Your task to perform on an android device: turn on javascript in the chrome app Image 0: 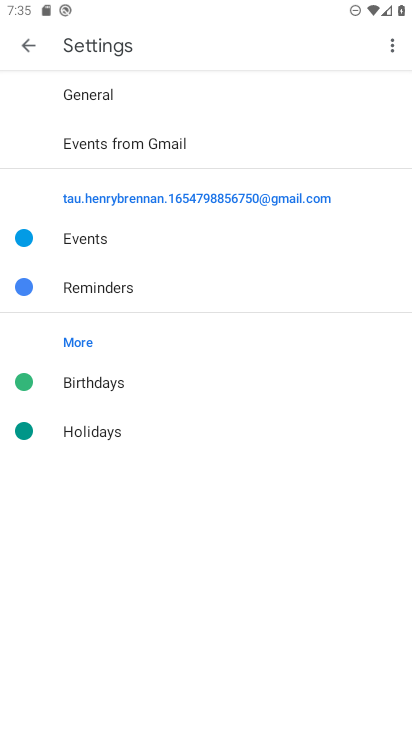
Step 0: press home button
Your task to perform on an android device: turn on javascript in the chrome app Image 1: 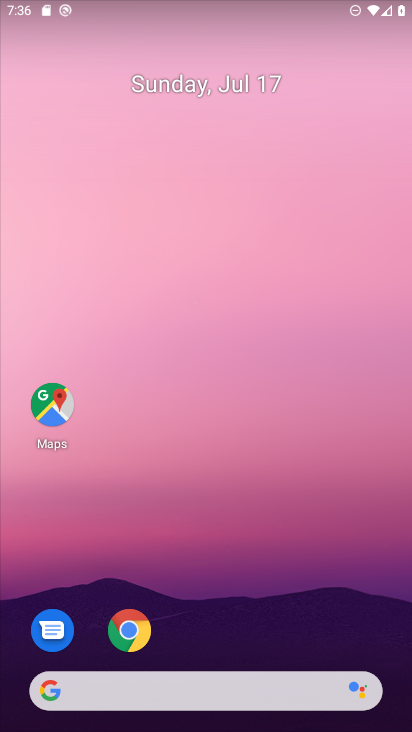
Step 1: drag from (320, 618) to (223, 14)
Your task to perform on an android device: turn on javascript in the chrome app Image 2: 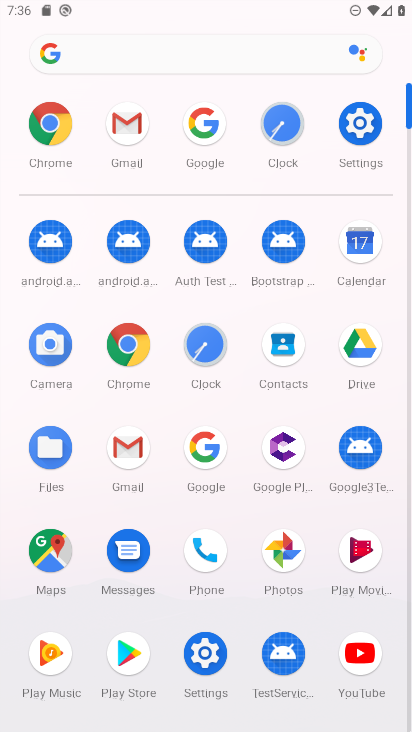
Step 2: click (35, 114)
Your task to perform on an android device: turn on javascript in the chrome app Image 3: 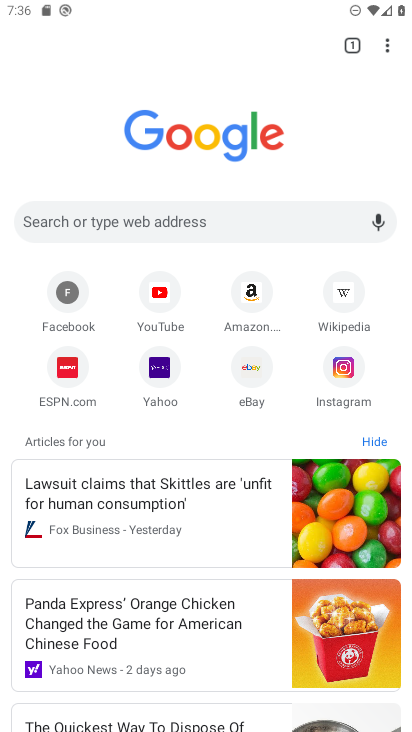
Step 3: click (385, 44)
Your task to perform on an android device: turn on javascript in the chrome app Image 4: 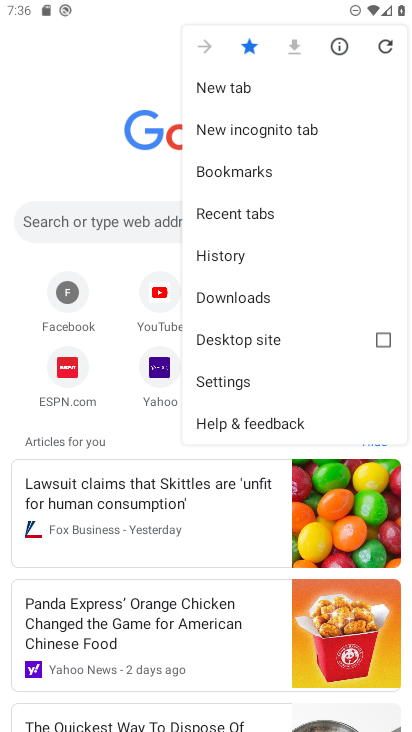
Step 4: click (239, 387)
Your task to perform on an android device: turn on javascript in the chrome app Image 5: 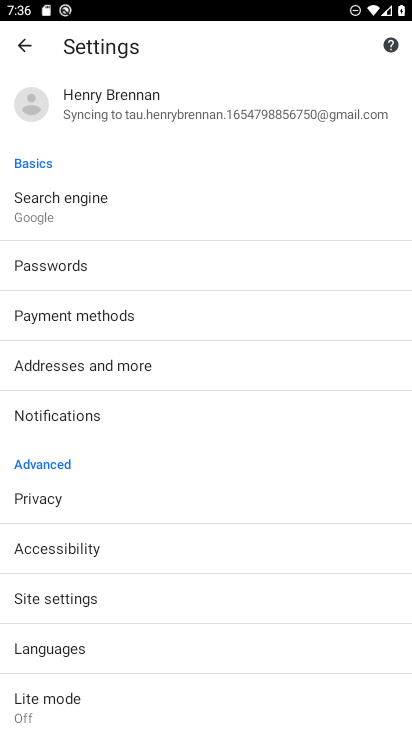
Step 5: click (88, 600)
Your task to perform on an android device: turn on javascript in the chrome app Image 6: 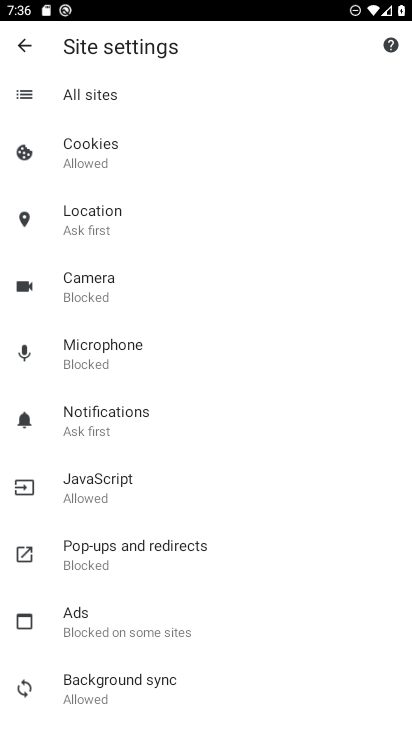
Step 6: click (167, 483)
Your task to perform on an android device: turn on javascript in the chrome app Image 7: 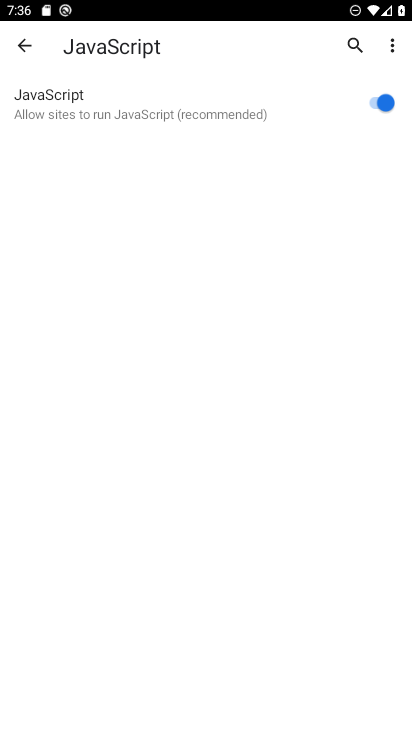
Step 7: task complete